Your task to perform on an android device: Open Reddit.com Image 0: 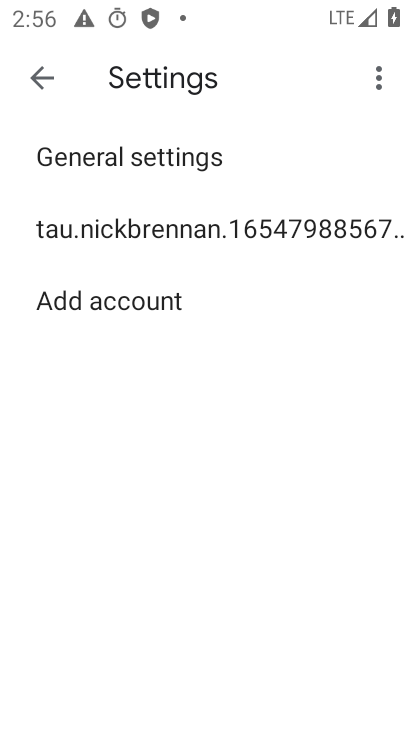
Step 0: press home button
Your task to perform on an android device: Open Reddit.com Image 1: 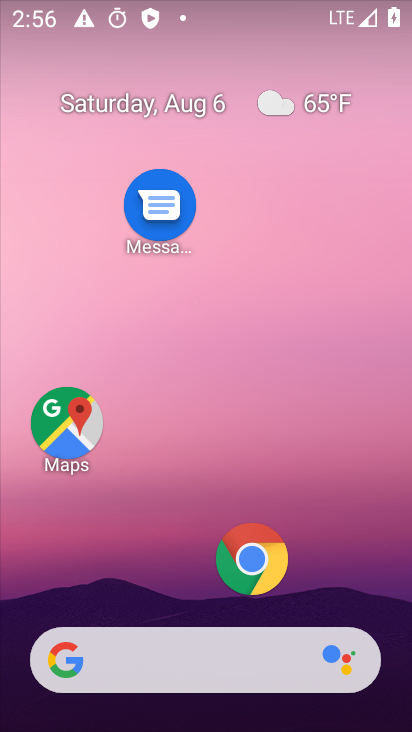
Step 1: click (260, 566)
Your task to perform on an android device: Open Reddit.com Image 2: 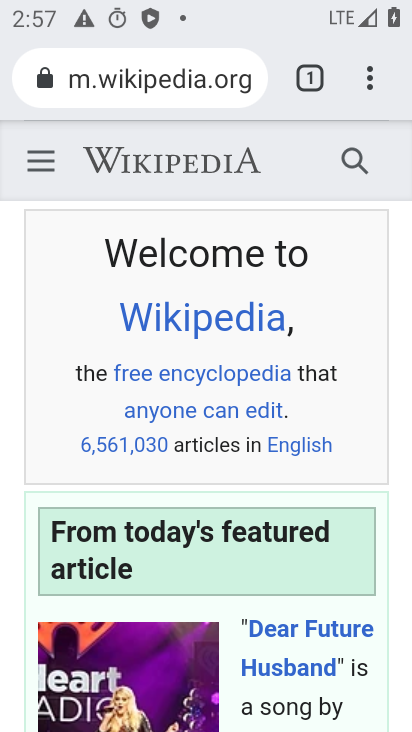
Step 2: click (164, 75)
Your task to perform on an android device: Open Reddit.com Image 3: 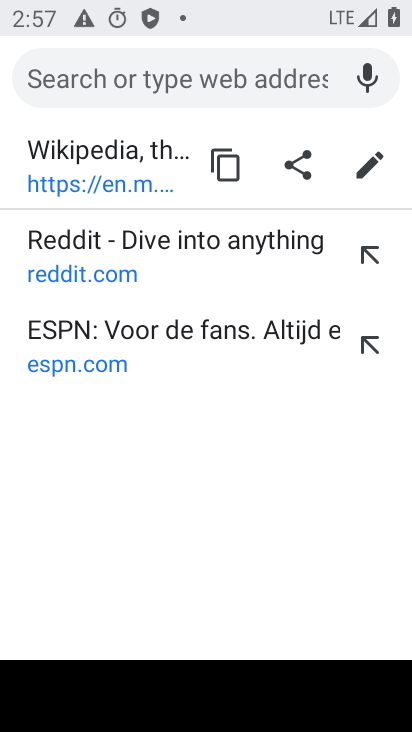
Step 3: type "www.reddit.com"
Your task to perform on an android device: Open Reddit.com Image 4: 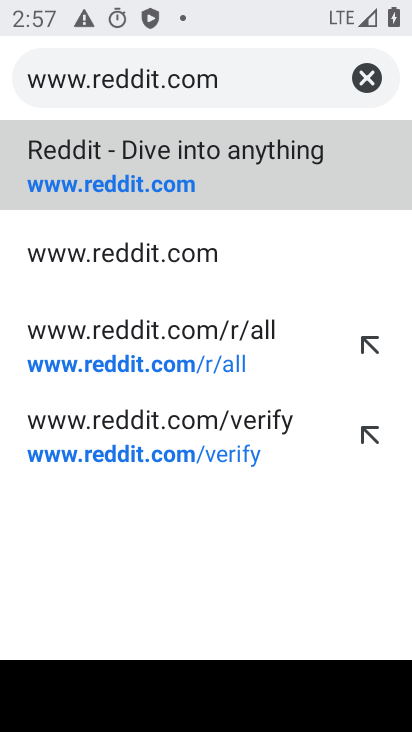
Step 4: click (136, 188)
Your task to perform on an android device: Open Reddit.com Image 5: 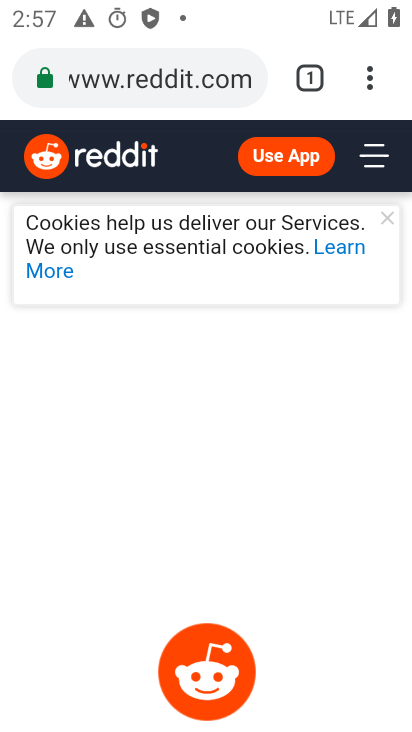
Step 5: task complete